Your task to perform on an android device: star an email in the gmail app Image 0: 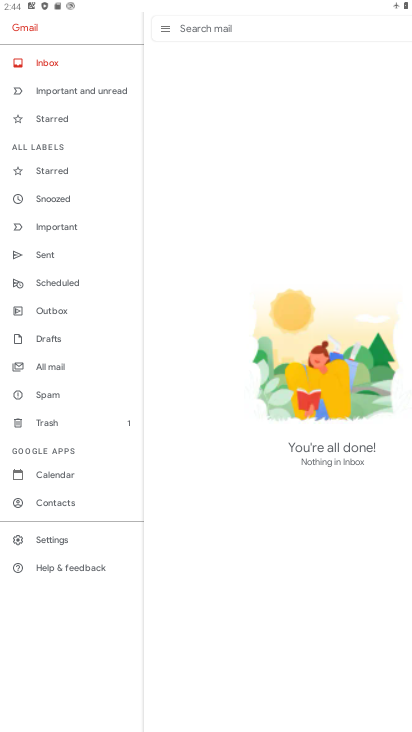
Step 0: click (186, 171)
Your task to perform on an android device: star an email in the gmail app Image 1: 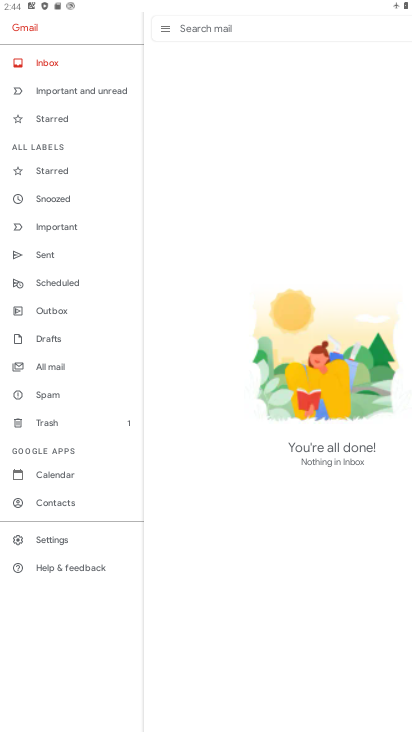
Step 1: task complete